Your task to perform on an android device: turn pop-ups on in chrome Image 0: 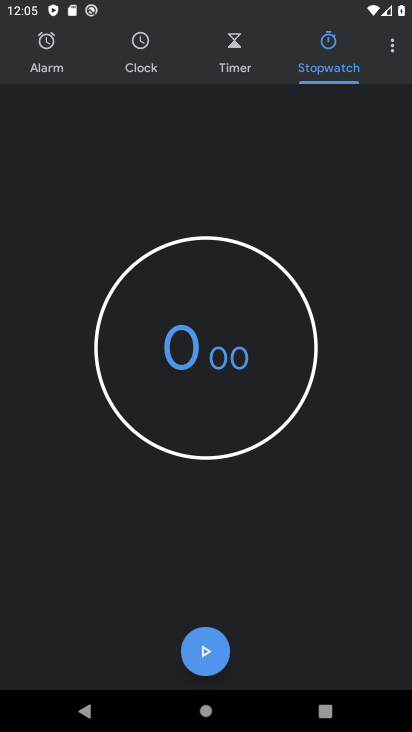
Step 0: press home button
Your task to perform on an android device: turn pop-ups on in chrome Image 1: 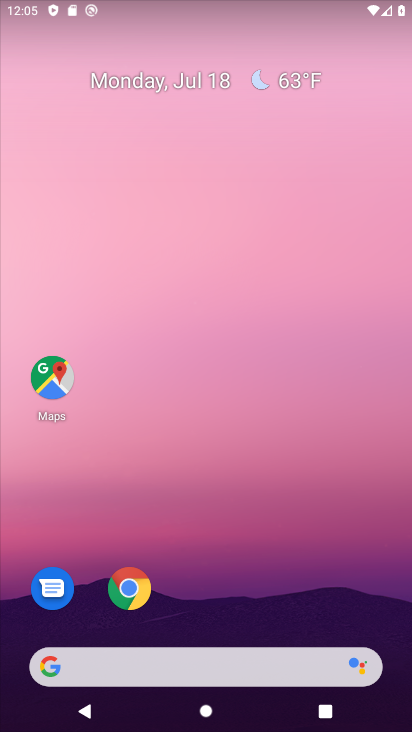
Step 1: click (127, 591)
Your task to perform on an android device: turn pop-ups on in chrome Image 2: 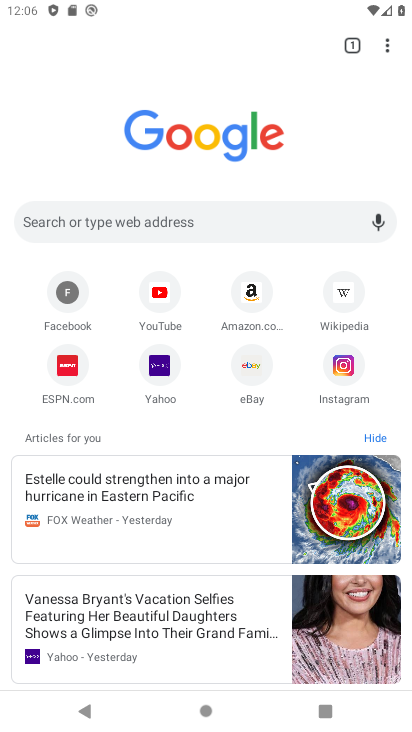
Step 2: click (386, 51)
Your task to perform on an android device: turn pop-ups on in chrome Image 3: 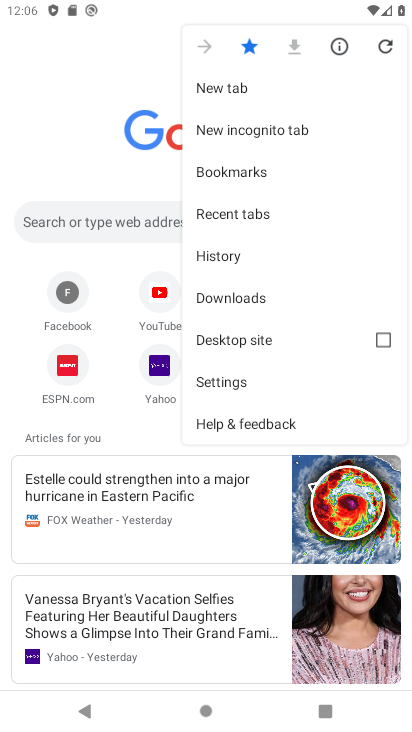
Step 3: click (208, 378)
Your task to perform on an android device: turn pop-ups on in chrome Image 4: 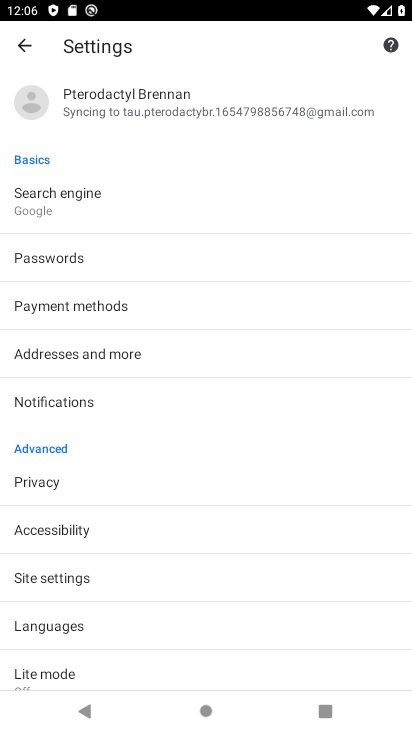
Step 4: click (62, 574)
Your task to perform on an android device: turn pop-ups on in chrome Image 5: 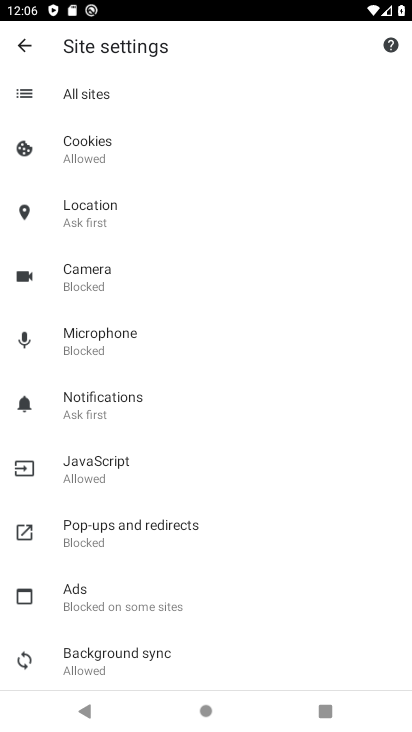
Step 5: click (87, 528)
Your task to perform on an android device: turn pop-ups on in chrome Image 6: 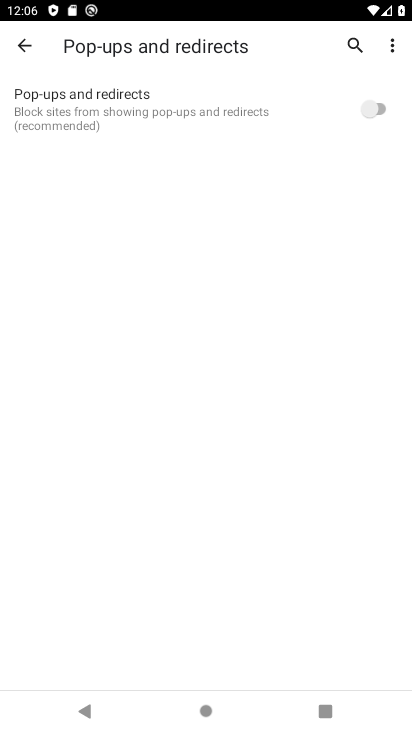
Step 6: click (379, 111)
Your task to perform on an android device: turn pop-ups on in chrome Image 7: 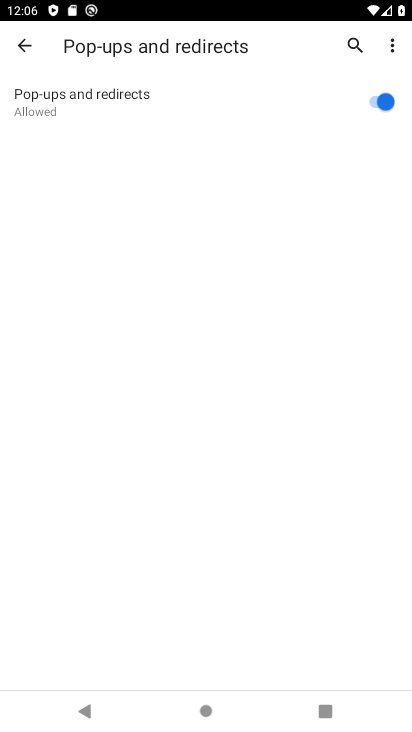
Step 7: task complete